Your task to perform on an android device: Show me popular videos on Youtube Image 0: 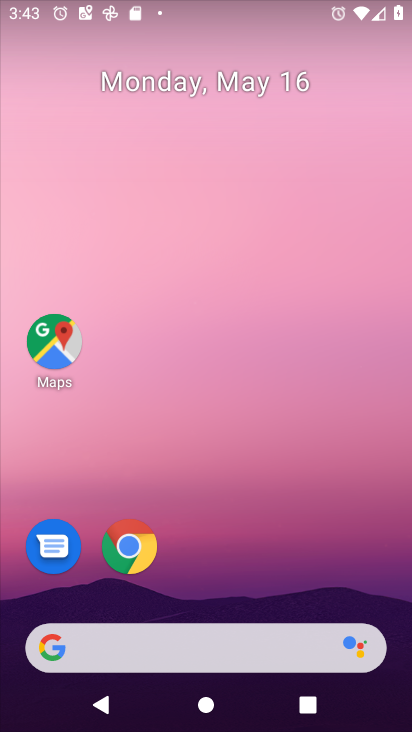
Step 0: drag from (368, 583) to (371, 107)
Your task to perform on an android device: Show me popular videos on Youtube Image 1: 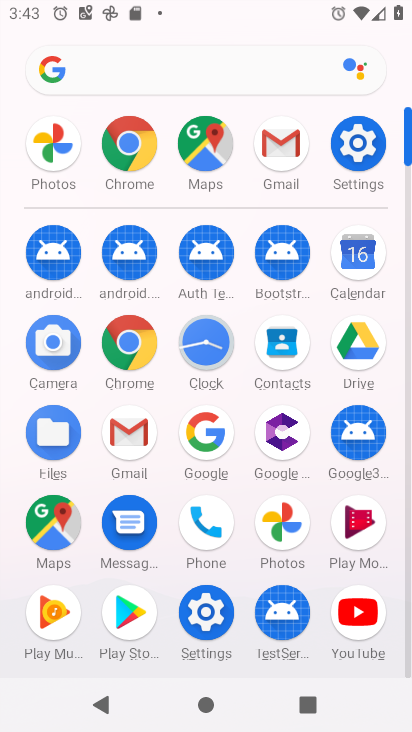
Step 1: click (365, 624)
Your task to perform on an android device: Show me popular videos on Youtube Image 2: 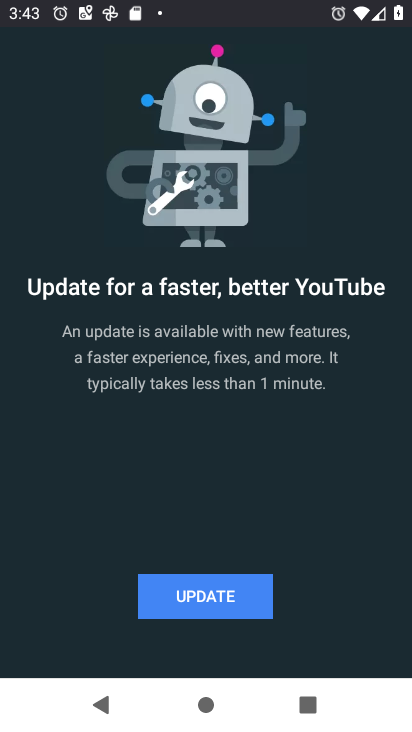
Step 2: click (245, 607)
Your task to perform on an android device: Show me popular videos on Youtube Image 3: 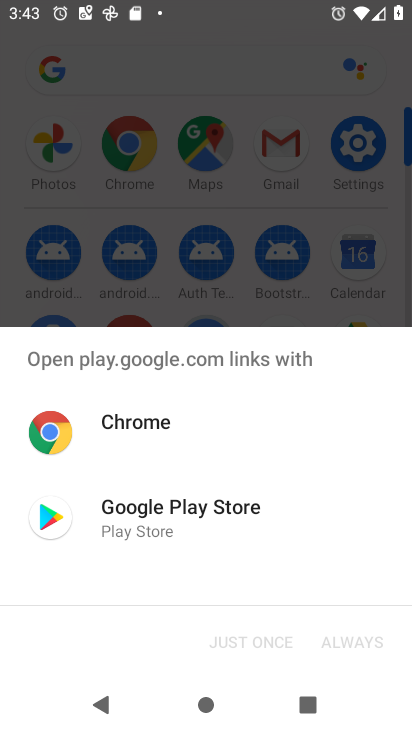
Step 3: click (153, 530)
Your task to perform on an android device: Show me popular videos on Youtube Image 4: 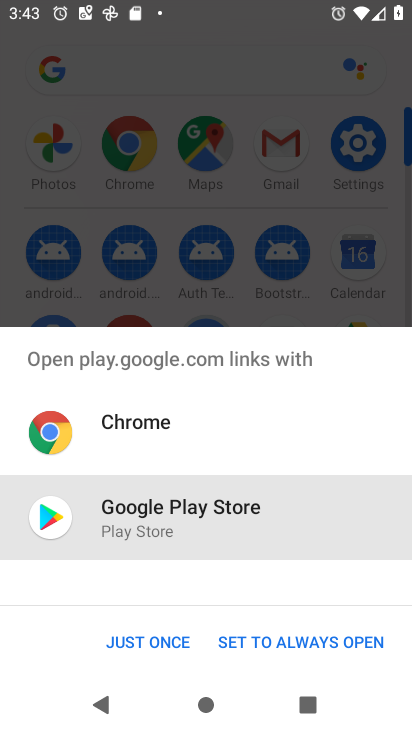
Step 4: click (147, 636)
Your task to perform on an android device: Show me popular videos on Youtube Image 5: 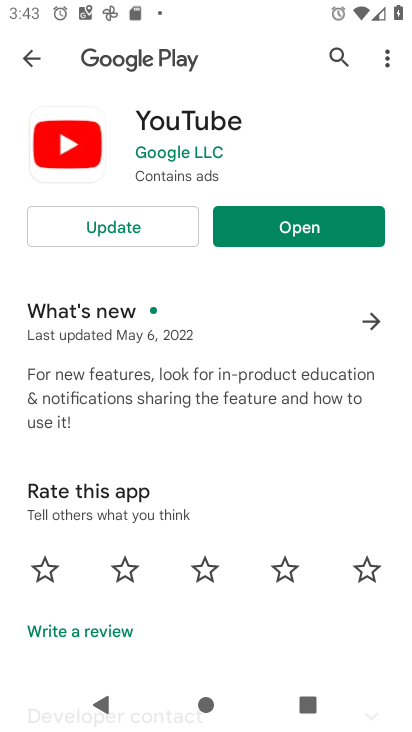
Step 5: click (125, 232)
Your task to perform on an android device: Show me popular videos on Youtube Image 6: 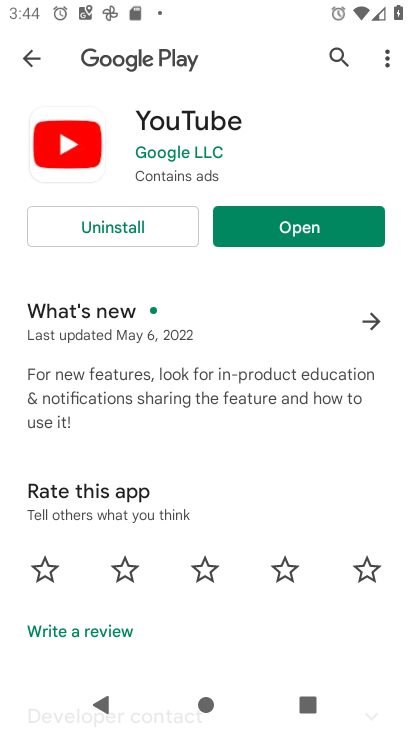
Step 6: click (345, 239)
Your task to perform on an android device: Show me popular videos on Youtube Image 7: 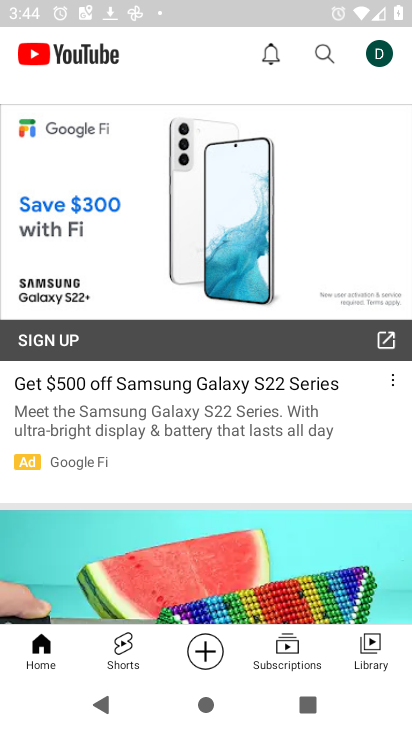
Step 7: task complete